Your task to perform on an android device: Show me recent news Image 0: 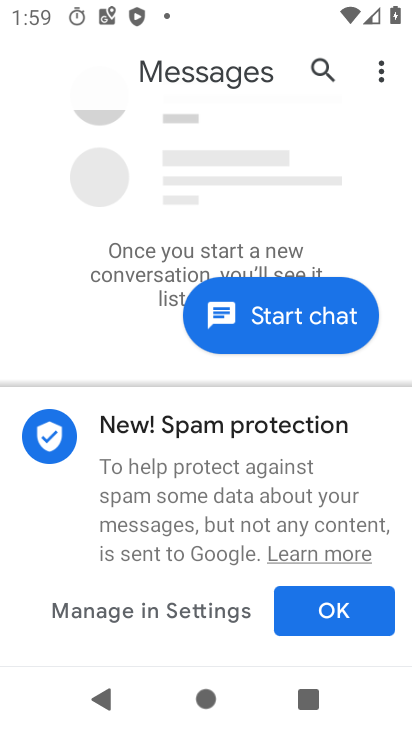
Step 0: press home button
Your task to perform on an android device: Show me recent news Image 1: 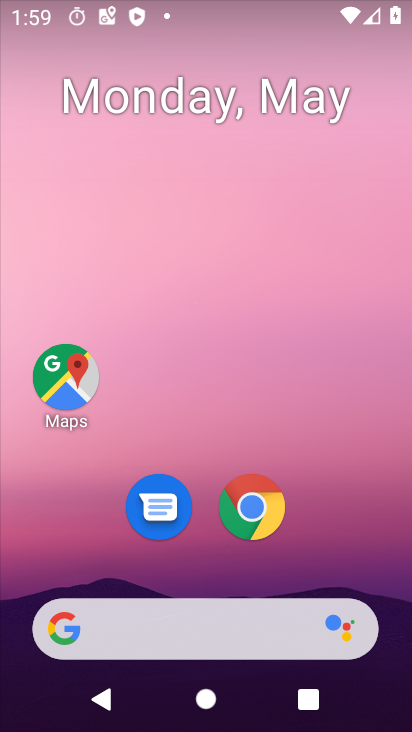
Step 1: drag from (323, 546) to (308, 124)
Your task to perform on an android device: Show me recent news Image 2: 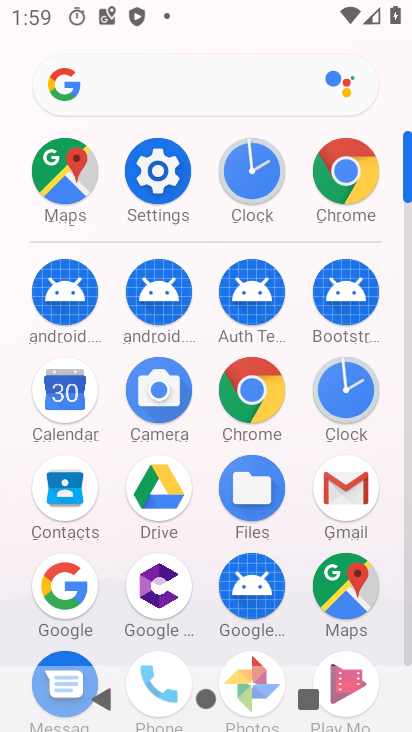
Step 2: click (237, 421)
Your task to perform on an android device: Show me recent news Image 3: 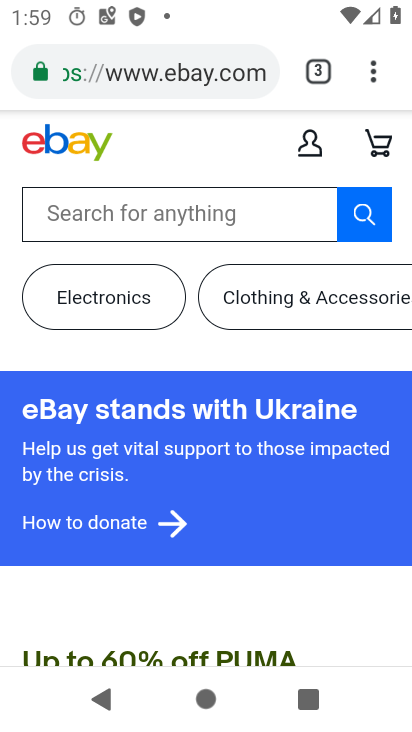
Step 3: click (218, 78)
Your task to perform on an android device: Show me recent news Image 4: 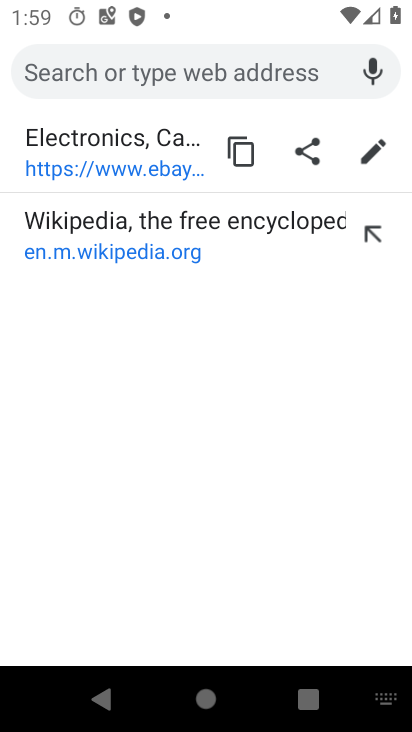
Step 4: type "recent news "
Your task to perform on an android device: Show me recent news Image 5: 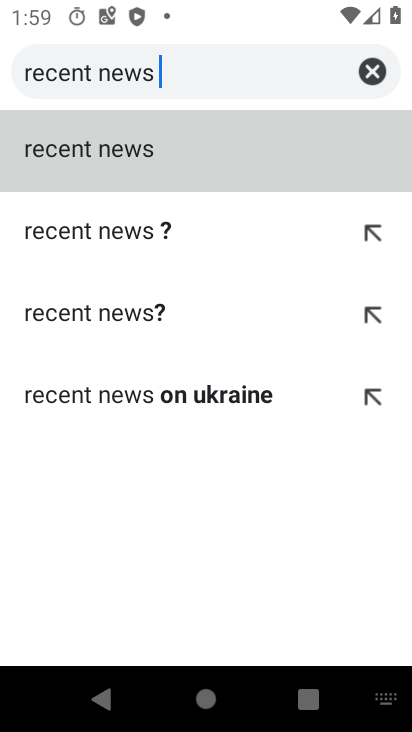
Step 5: click (216, 151)
Your task to perform on an android device: Show me recent news Image 6: 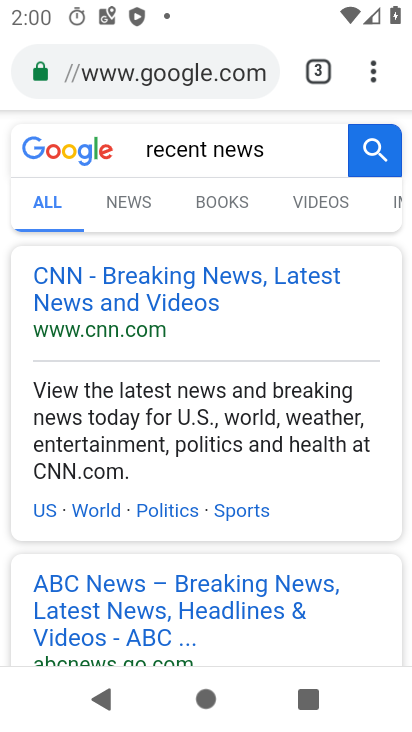
Step 6: task complete